Your task to perform on an android device: turn smart compose on in the gmail app Image 0: 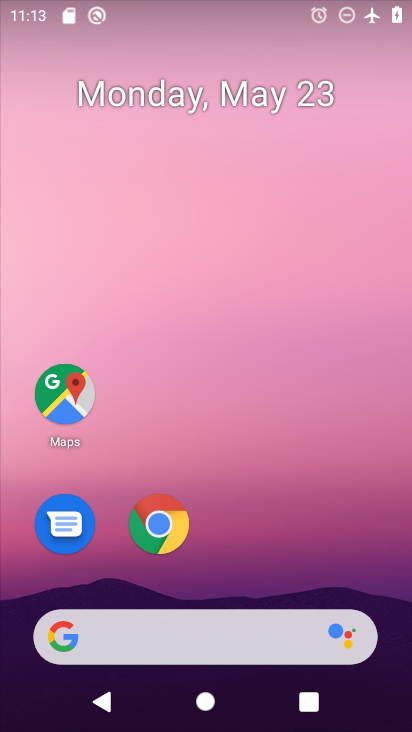
Step 0: drag from (219, 514) to (240, 214)
Your task to perform on an android device: turn smart compose on in the gmail app Image 1: 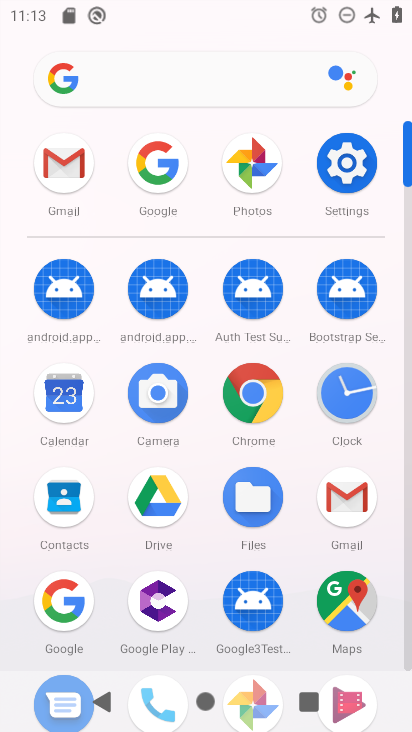
Step 1: click (345, 499)
Your task to perform on an android device: turn smart compose on in the gmail app Image 2: 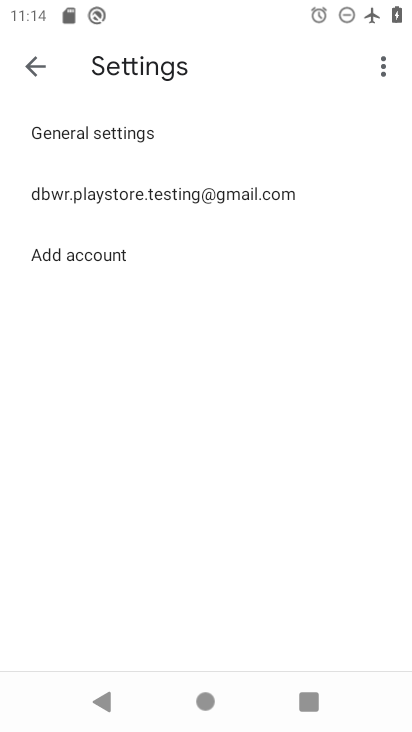
Step 2: click (241, 180)
Your task to perform on an android device: turn smart compose on in the gmail app Image 3: 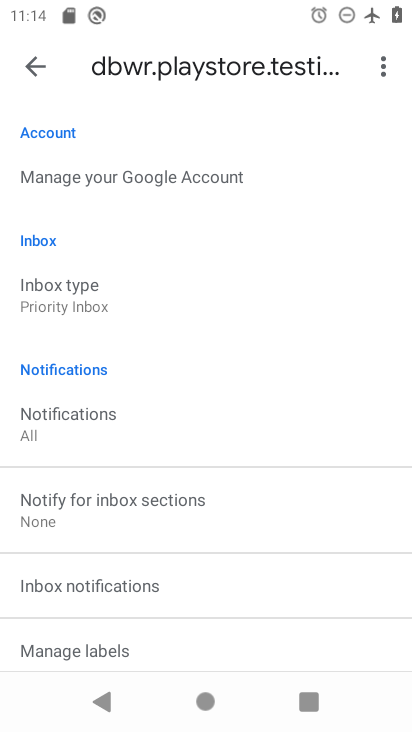
Step 3: task complete